Your task to perform on an android device: Go to wifi settings Image 0: 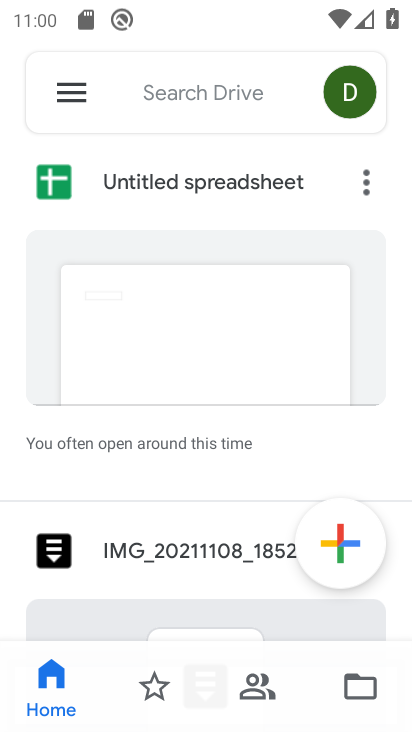
Step 0: press home button
Your task to perform on an android device: Go to wifi settings Image 1: 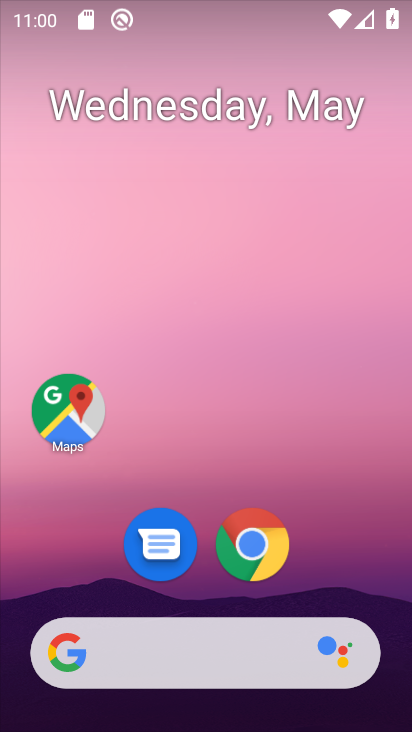
Step 1: drag from (343, 582) to (116, 211)
Your task to perform on an android device: Go to wifi settings Image 2: 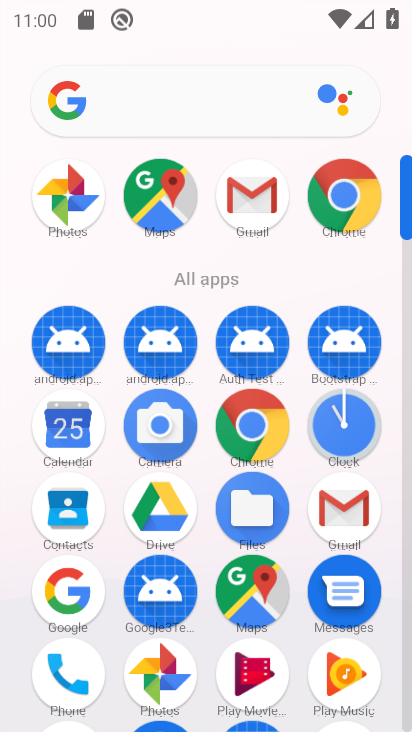
Step 2: click (403, 232)
Your task to perform on an android device: Go to wifi settings Image 3: 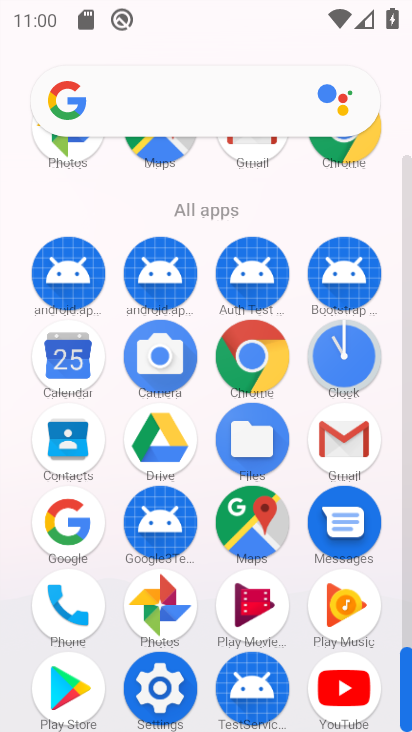
Step 3: click (164, 679)
Your task to perform on an android device: Go to wifi settings Image 4: 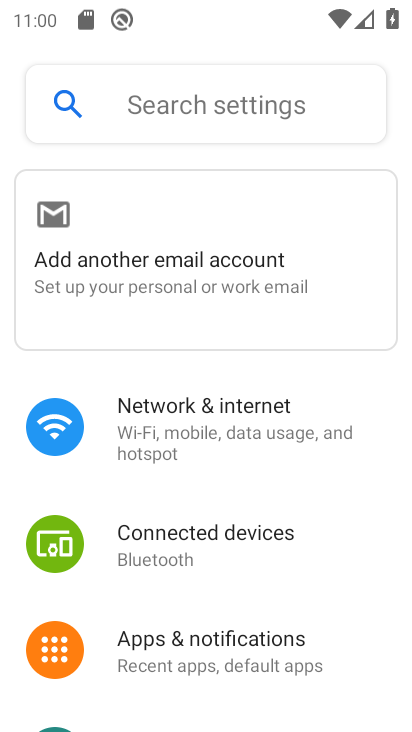
Step 4: click (175, 443)
Your task to perform on an android device: Go to wifi settings Image 5: 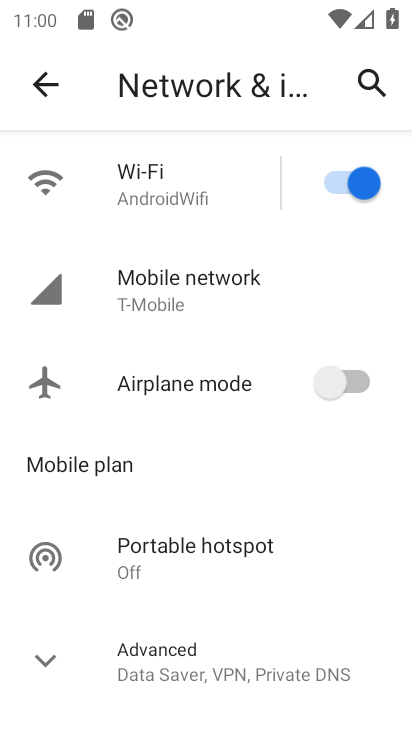
Step 5: click (150, 184)
Your task to perform on an android device: Go to wifi settings Image 6: 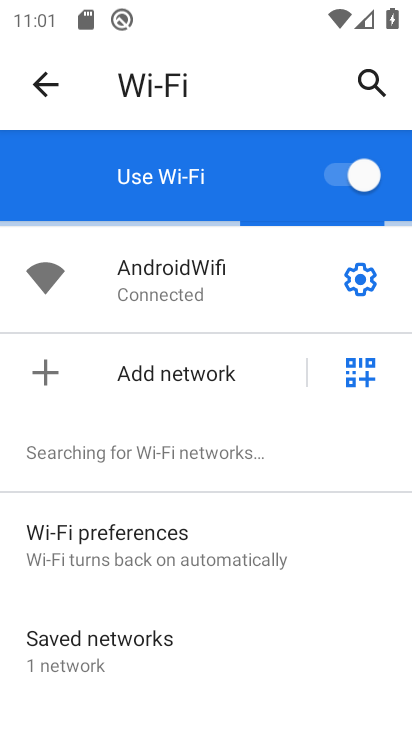
Step 6: task complete